Your task to perform on an android device: Go to Google maps Image 0: 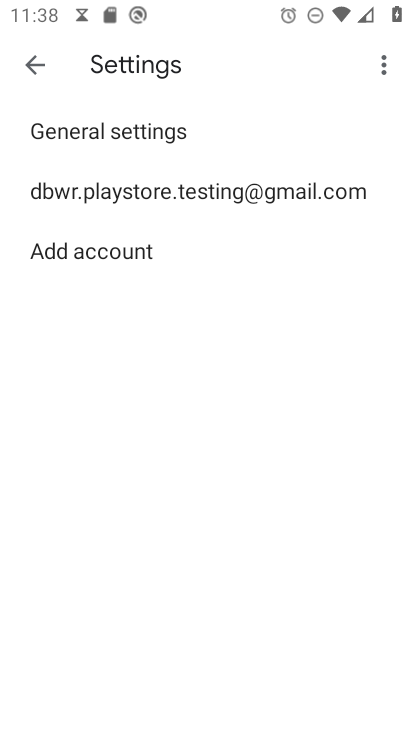
Step 0: press back button
Your task to perform on an android device: Go to Google maps Image 1: 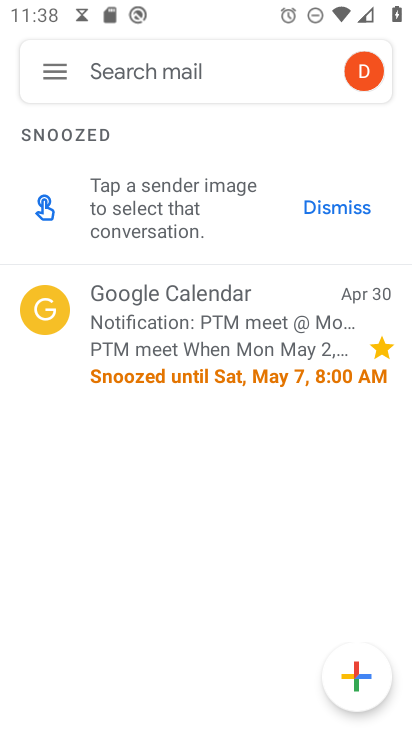
Step 1: press back button
Your task to perform on an android device: Go to Google maps Image 2: 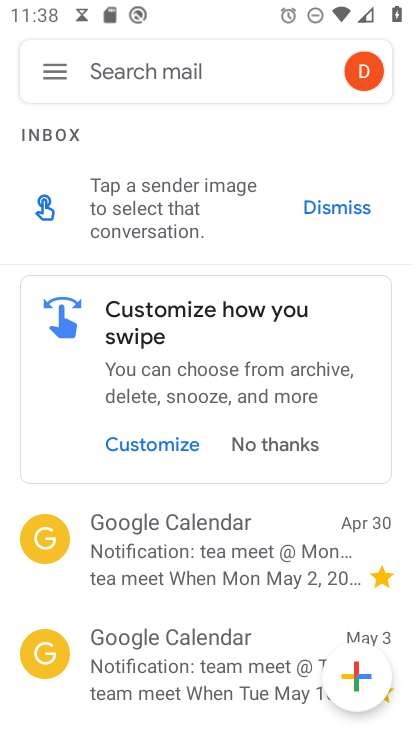
Step 2: press home button
Your task to perform on an android device: Go to Google maps Image 3: 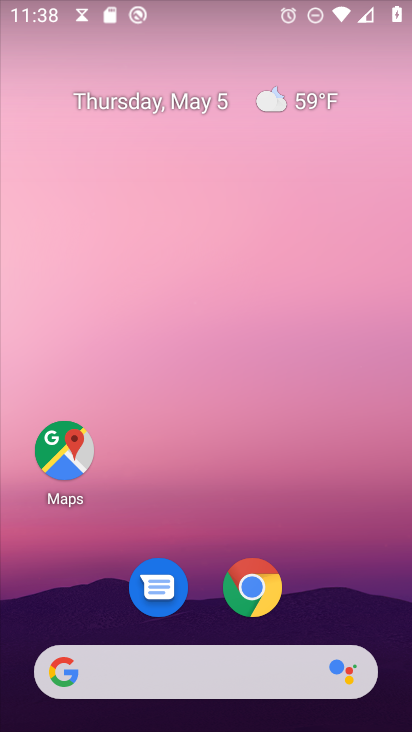
Step 3: drag from (311, 581) to (295, 88)
Your task to perform on an android device: Go to Google maps Image 4: 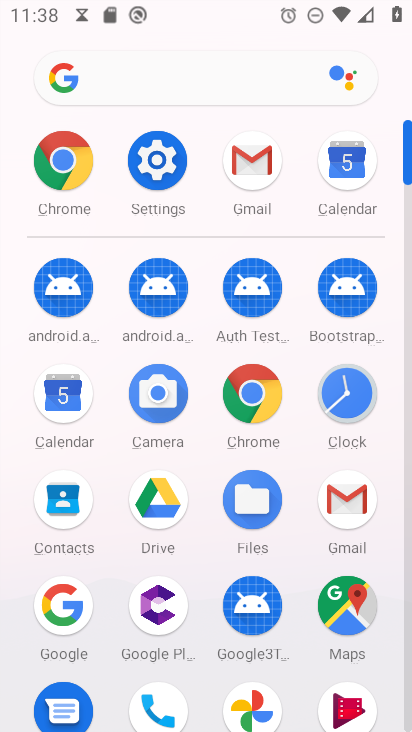
Step 4: drag from (13, 590) to (23, 268)
Your task to perform on an android device: Go to Google maps Image 5: 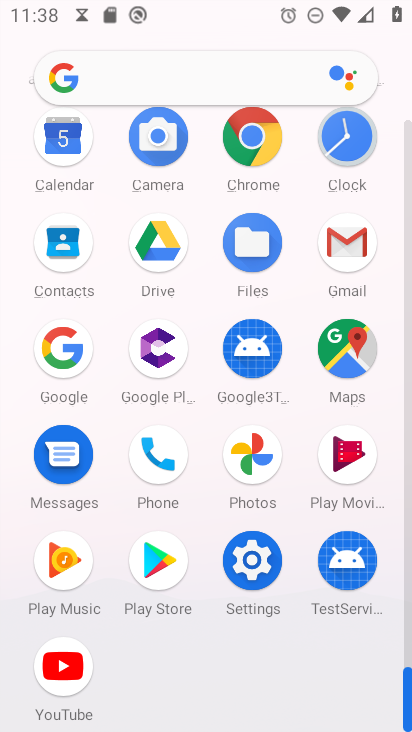
Step 5: click (348, 349)
Your task to perform on an android device: Go to Google maps Image 6: 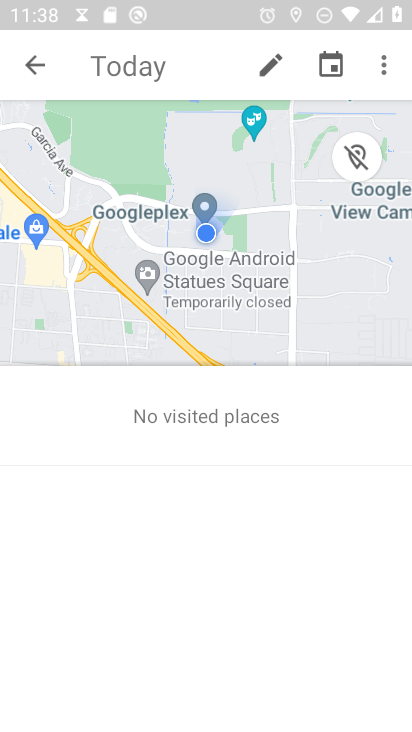
Step 6: click (35, 57)
Your task to perform on an android device: Go to Google maps Image 7: 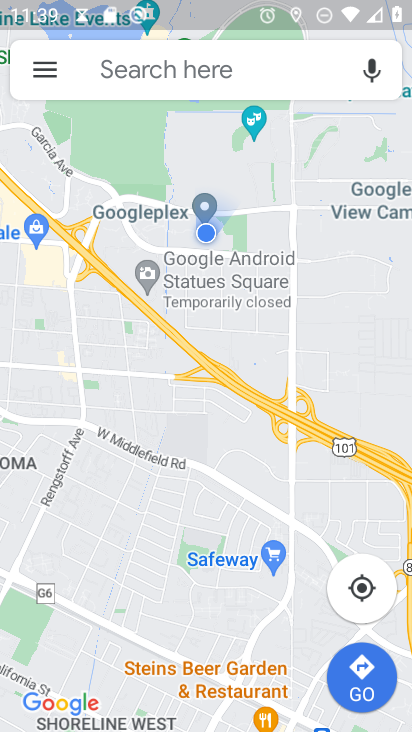
Step 7: task complete